Your task to perform on an android device: change the clock display to show seconds Image 0: 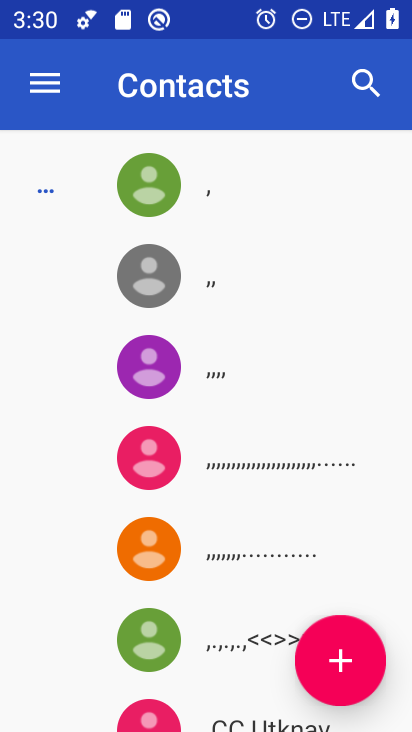
Step 0: press home button
Your task to perform on an android device: change the clock display to show seconds Image 1: 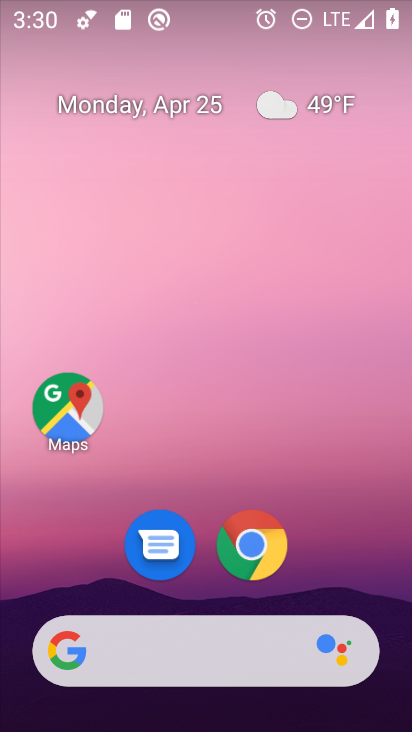
Step 1: drag from (349, 473) to (264, 151)
Your task to perform on an android device: change the clock display to show seconds Image 2: 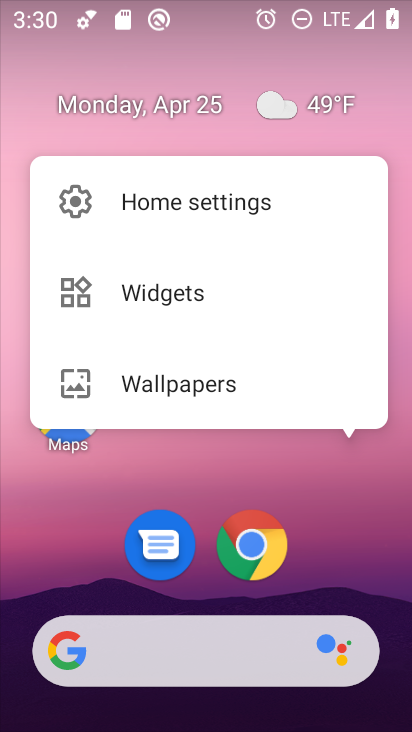
Step 2: drag from (367, 567) to (199, 14)
Your task to perform on an android device: change the clock display to show seconds Image 3: 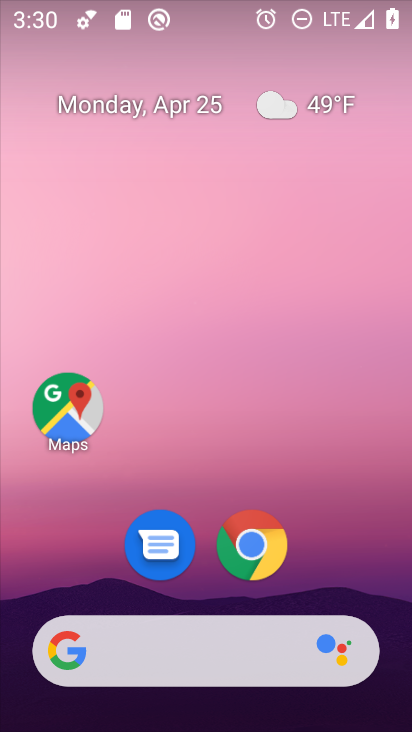
Step 3: drag from (312, 505) to (177, 57)
Your task to perform on an android device: change the clock display to show seconds Image 4: 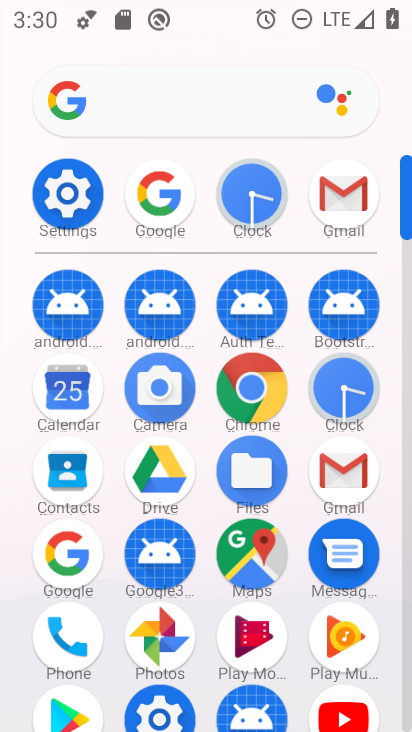
Step 4: click (273, 207)
Your task to perform on an android device: change the clock display to show seconds Image 5: 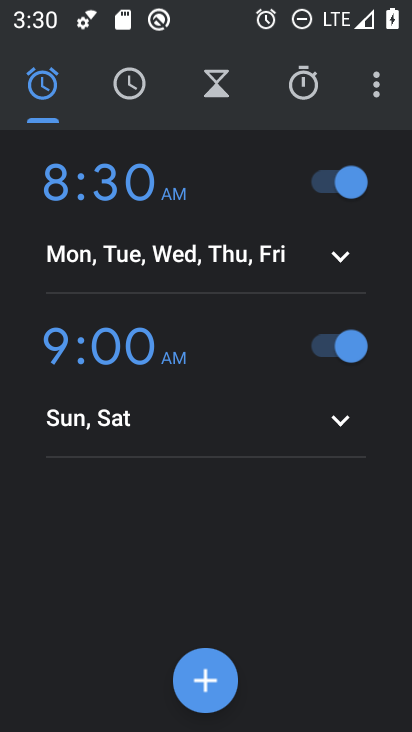
Step 5: click (383, 82)
Your task to perform on an android device: change the clock display to show seconds Image 6: 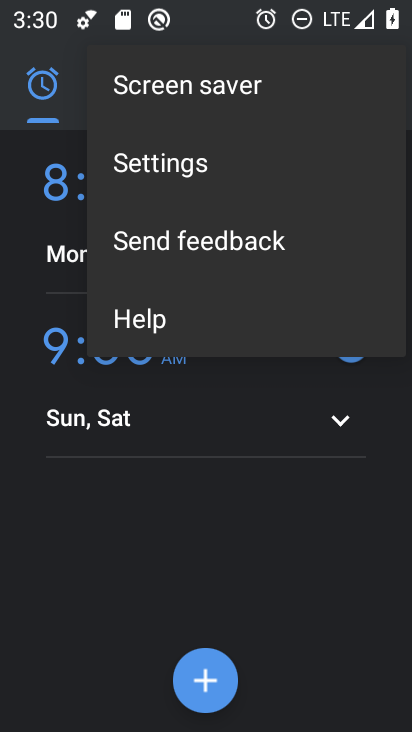
Step 6: click (207, 162)
Your task to perform on an android device: change the clock display to show seconds Image 7: 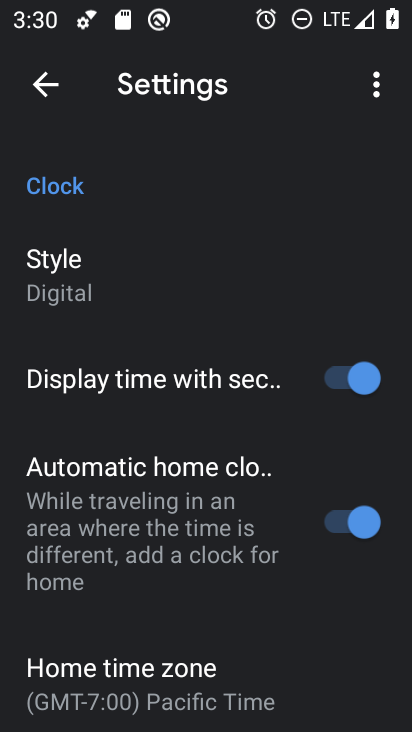
Step 7: task complete